Your task to perform on an android device: star an email in the gmail app Image 0: 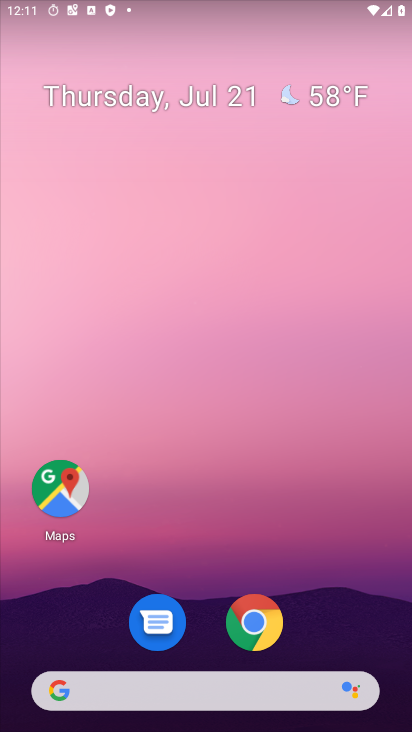
Step 0: drag from (34, 658) to (250, 162)
Your task to perform on an android device: star an email in the gmail app Image 1: 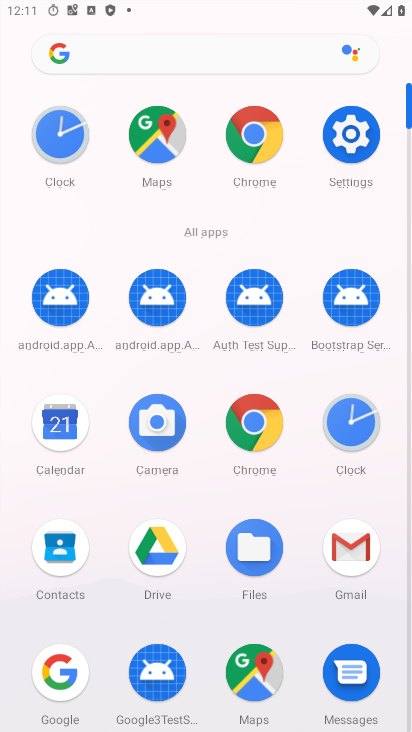
Step 1: click (361, 548)
Your task to perform on an android device: star an email in the gmail app Image 2: 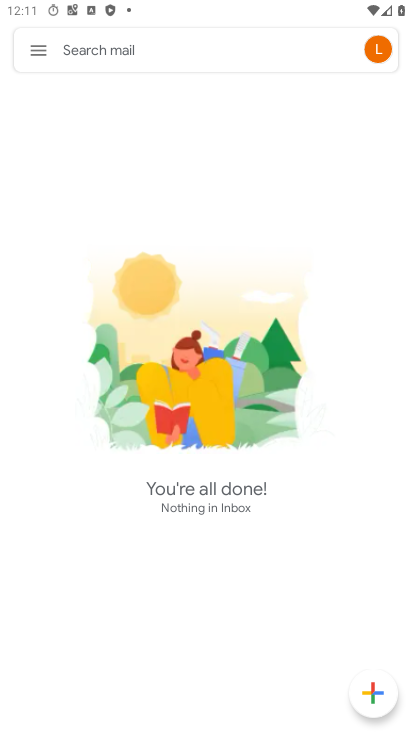
Step 2: click (49, 50)
Your task to perform on an android device: star an email in the gmail app Image 3: 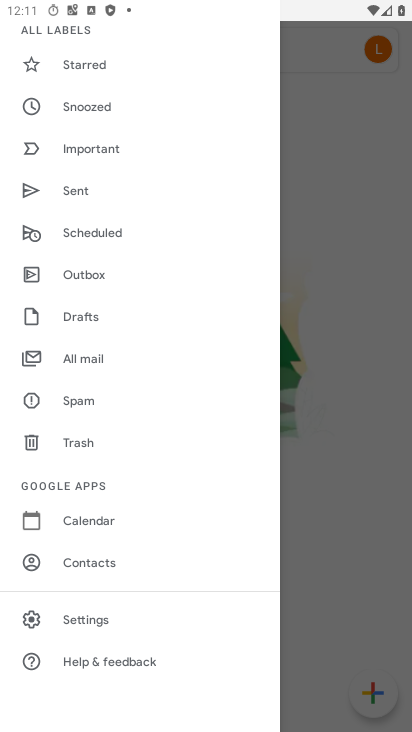
Step 3: click (100, 66)
Your task to perform on an android device: star an email in the gmail app Image 4: 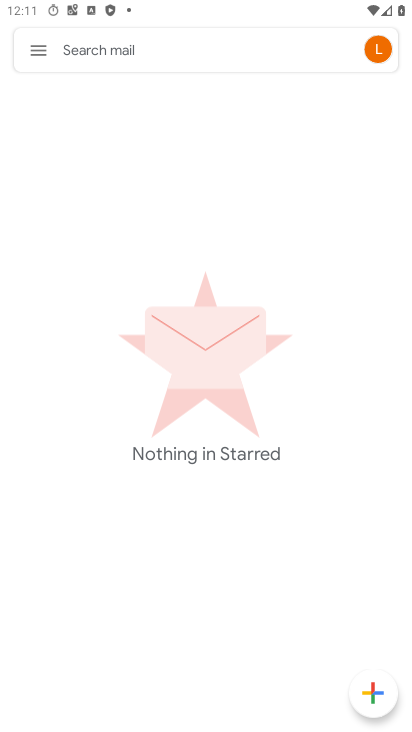
Step 4: task complete